Your task to perform on an android device: Open the phone app and click the voicemail tab. Image 0: 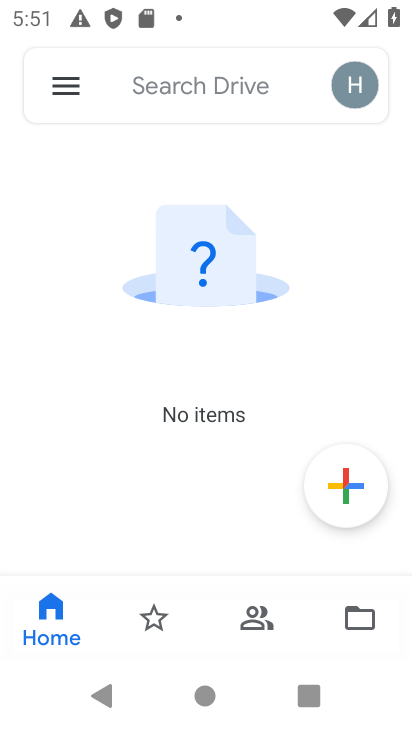
Step 0: click (197, 697)
Your task to perform on an android device: Open the phone app and click the voicemail tab. Image 1: 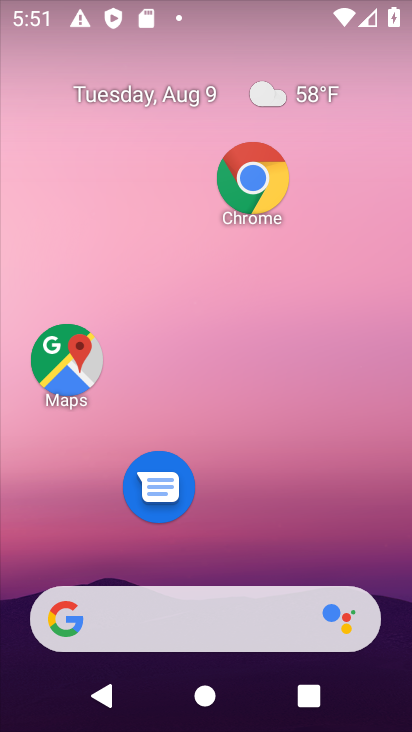
Step 1: drag from (212, 558) to (275, 237)
Your task to perform on an android device: Open the phone app and click the voicemail tab. Image 2: 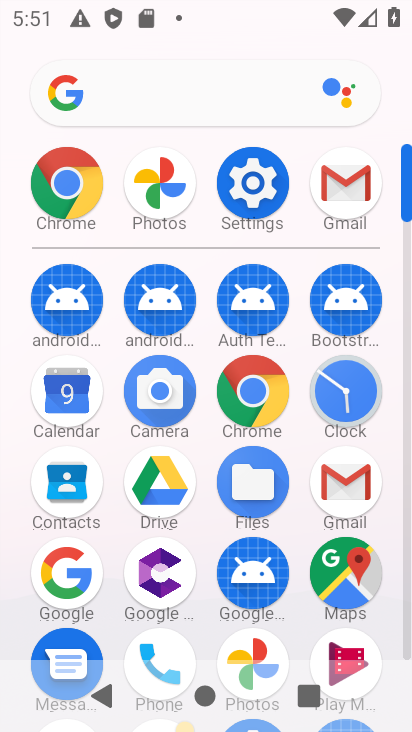
Step 2: click (158, 639)
Your task to perform on an android device: Open the phone app and click the voicemail tab. Image 3: 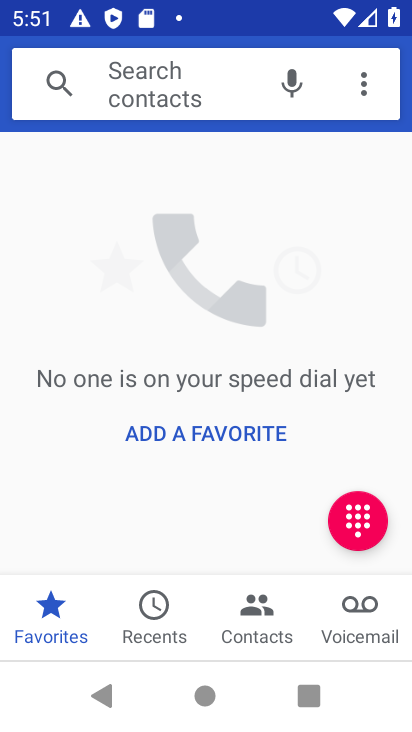
Step 3: click (360, 616)
Your task to perform on an android device: Open the phone app and click the voicemail tab. Image 4: 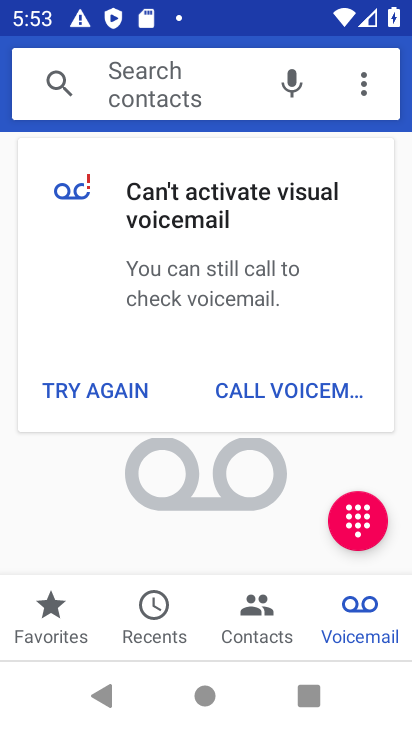
Step 4: task complete